Your task to perform on an android device: Open privacy settings Image 0: 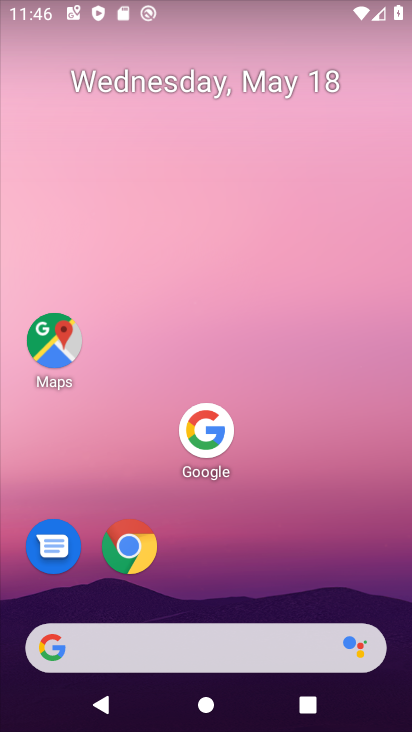
Step 0: click (136, 546)
Your task to perform on an android device: Open privacy settings Image 1: 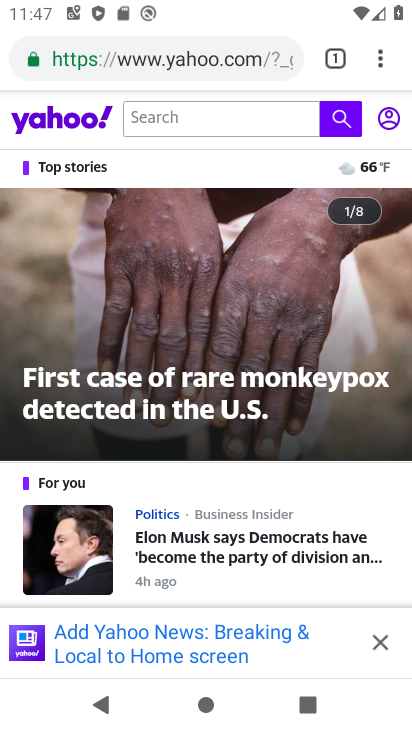
Step 1: task complete